Your task to perform on an android device: turn off javascript in the chrome app Image 0: 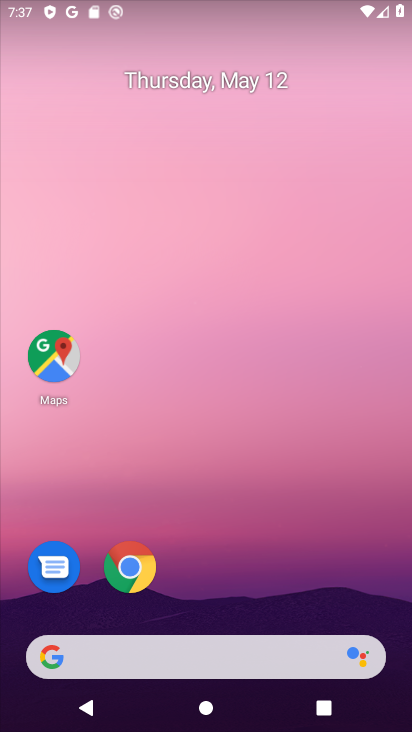
Step 0: drag from (257, 625) to (257, 166)
Your task to perform on an android device: turn off javascript in the chrome app Image 1: 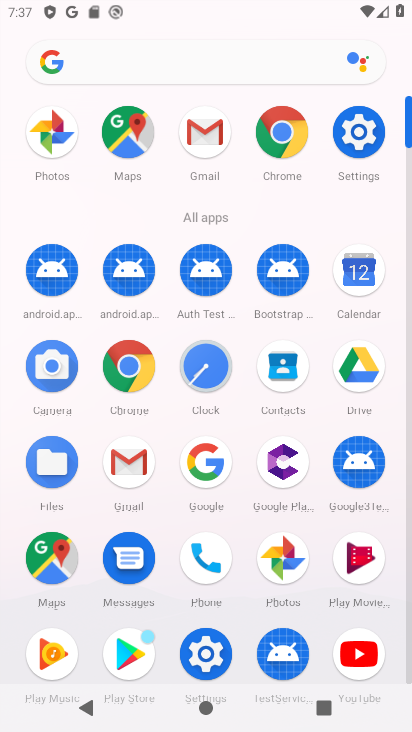
Step 1: click (302, 144)
Your task to perform on an android device: turn off javascript in the chrome app Image 2: 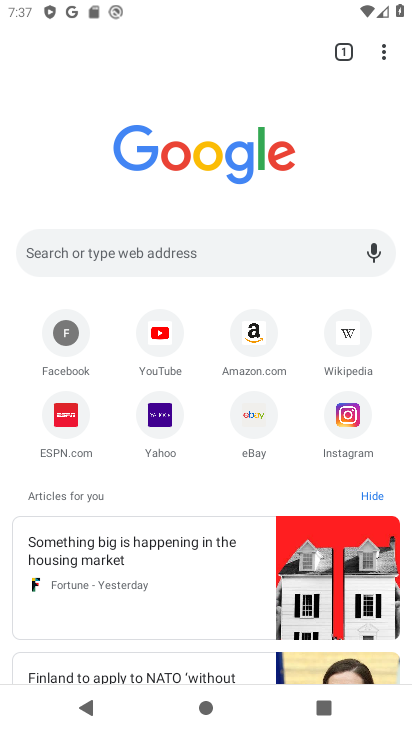
Step 2: click (376, 59)
Your task to perform on an android device: turn off javascript in the chrome app Image 3: 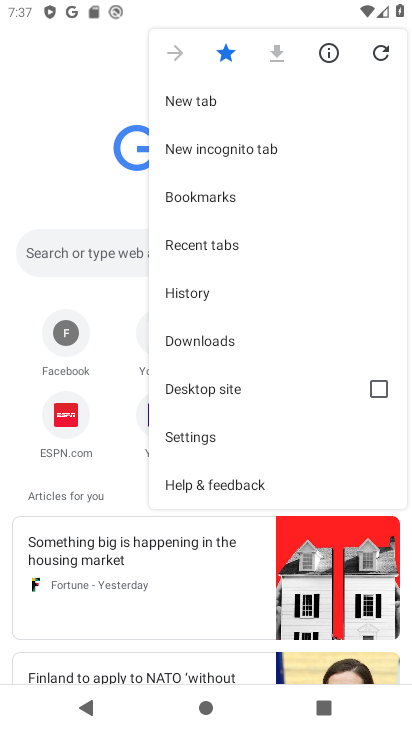
Step 3: drag from (262, 345) to (276, 127)
Your task to perform on an android device: turn off javascript in the chrome app Image 4: 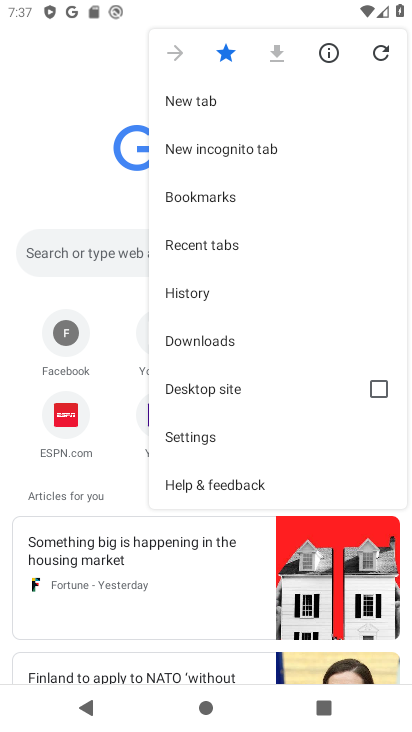
Step 4: click (222, 439)
Your task to perform on an android device: turn off javascript in the chrome app Image 5: 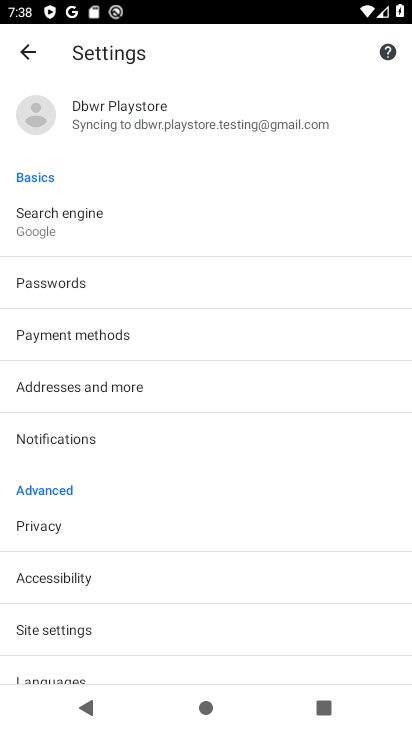
Step 5: drag from (184, 530) to (207, 328)
Your task to perform on an android device: turn off javascript in the chrome app Image 6: 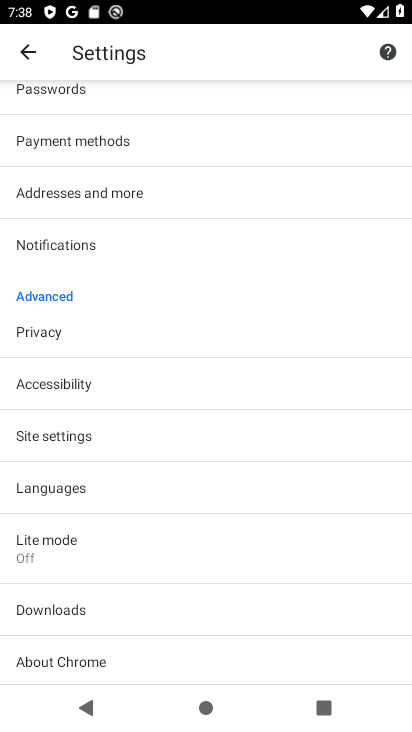
Step 6: click (85, 444)
Your task to perform on an android device: turn off javascript in the chrome app Image 7: 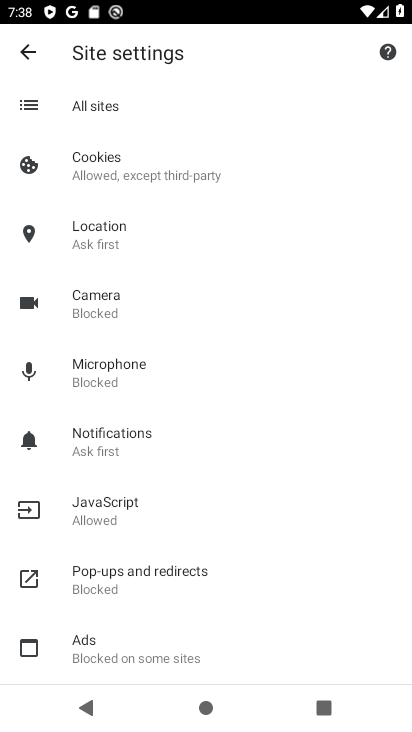
Step 7: click (141, 507)
Your task to perform on an android device: turn off javascript in the chrome app Image 8: 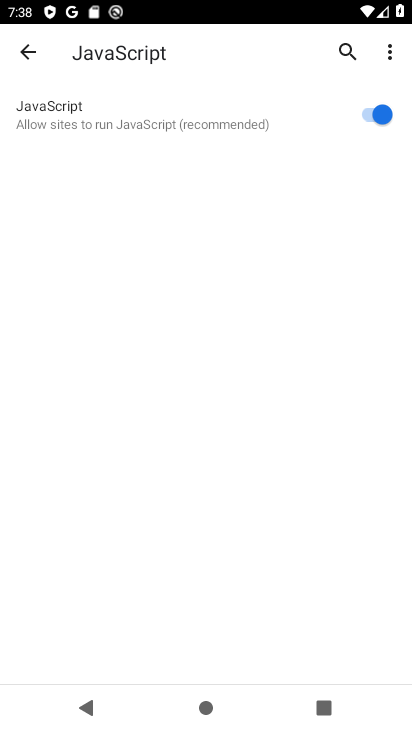
Step 8: click (375, 113)
Your task to perform on an android device: turn off javascript in the chrome app Image 9: 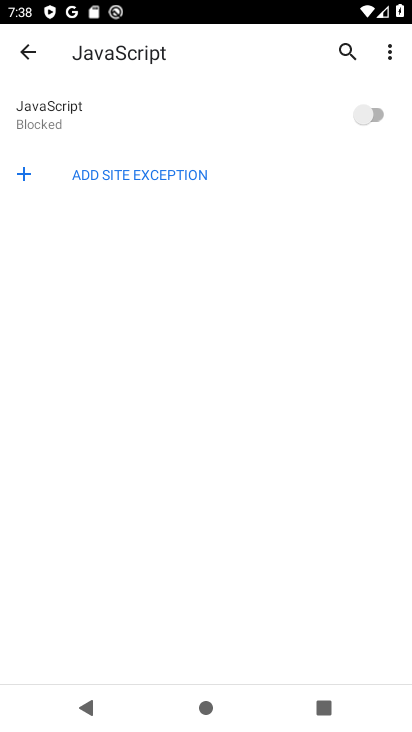
Step 9: task complete